Your task to perform on an android device: What's on my calendar tomorrow? Image 0: 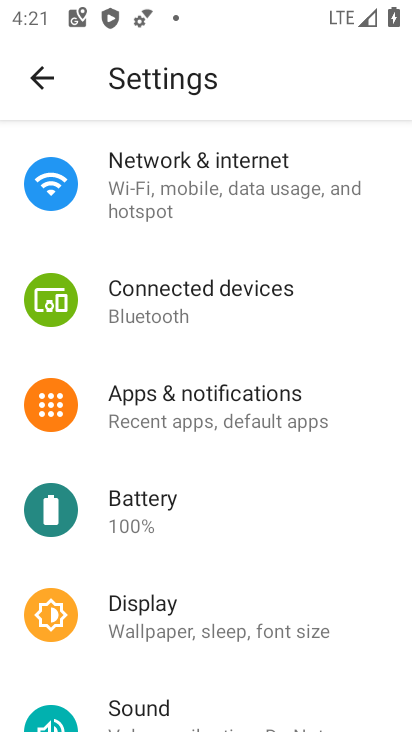
Step 0: press back button
Your task to perform on an android device: What's on my calendar tomorrow? Image 1: 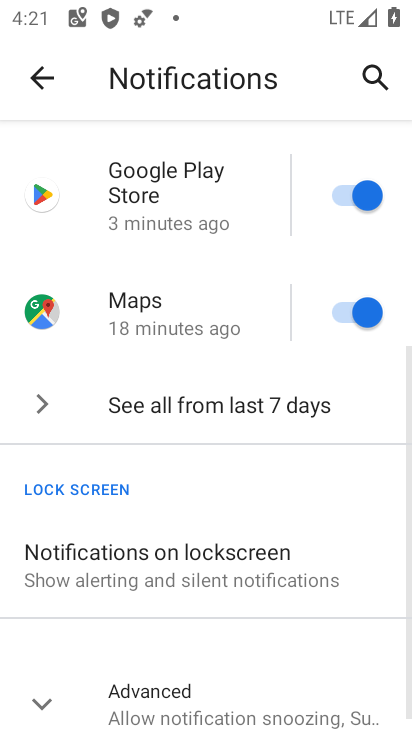
Step 1: press back button
Your task to perform on an android device: What's on my calendar tomorrow? Image 2: 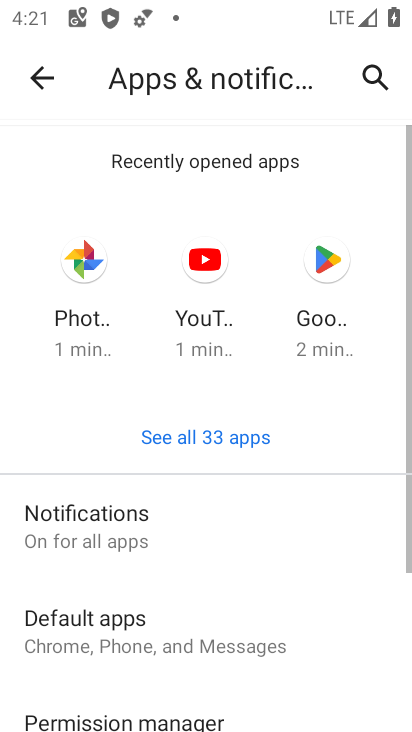
Step 2: press home button
Your task to perform on an android device: What's on my calendar tomorrow? Image 3: 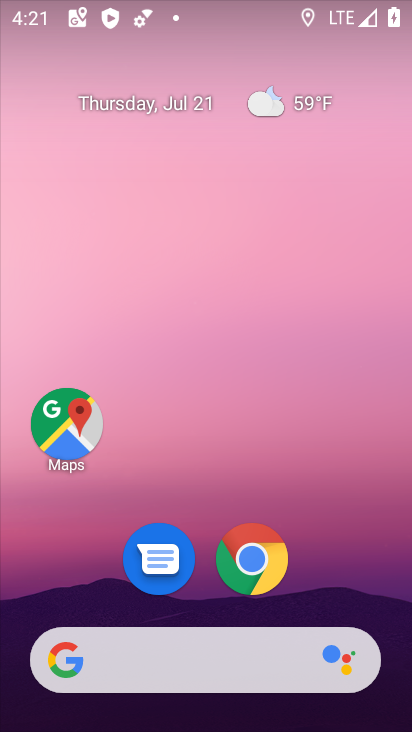
Step 3: drag from (86, 578) to (215, 1)
Your task to perform on an android device: What's on my calendar tomorrow? Image 4: 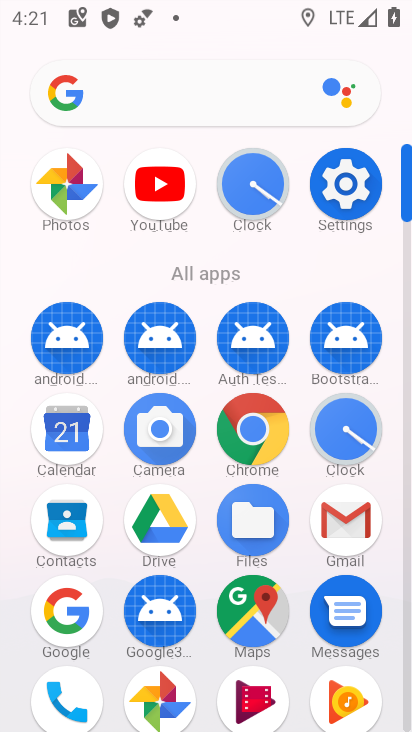
Step 4: click (65, 448)
Your task to perform on an android device: What's on my calendar tomorrow? Image 5: 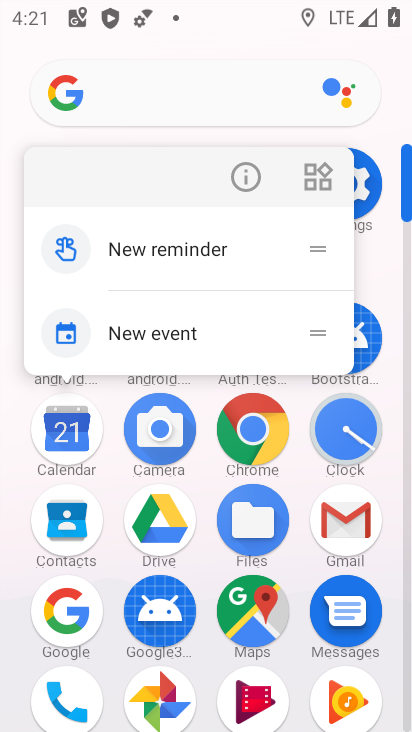
Step 5: click (50, 430)
Your task to perform on an android device: What's on my calendar tomorrow? Image 6: 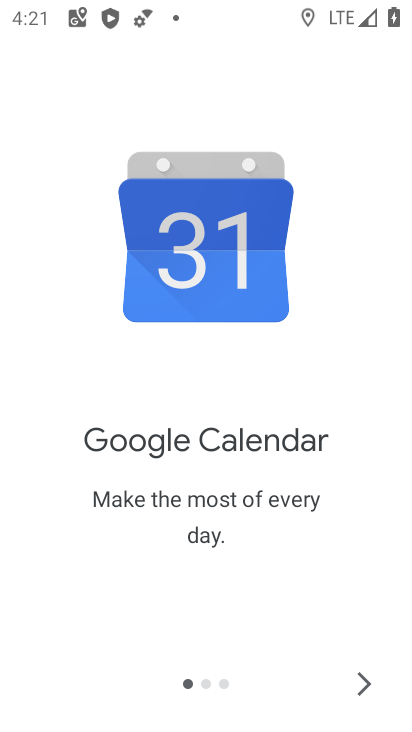
Step 6: click (371, 683)
Your task to perform on an android device: What's on my calendar tomorrow? Image 7: 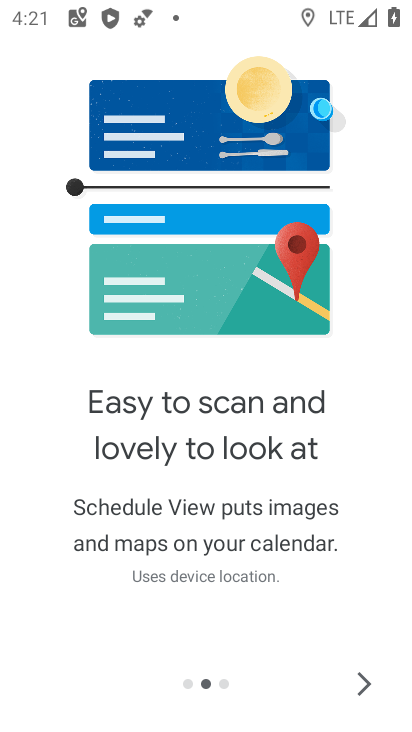
Step 7: click (371, 683)
Your task to perform on an android device: What's on my calendar tomorrow? Image 8: 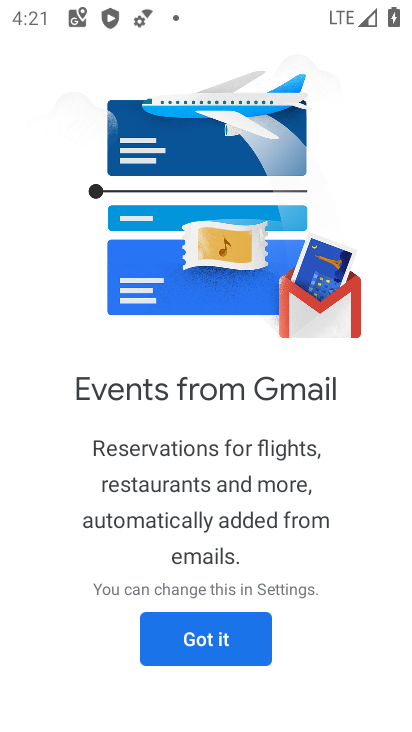
Step 8: click (209, 633)
Your task to perform on an android device: What's on my calendar tomorrow? Image 9: 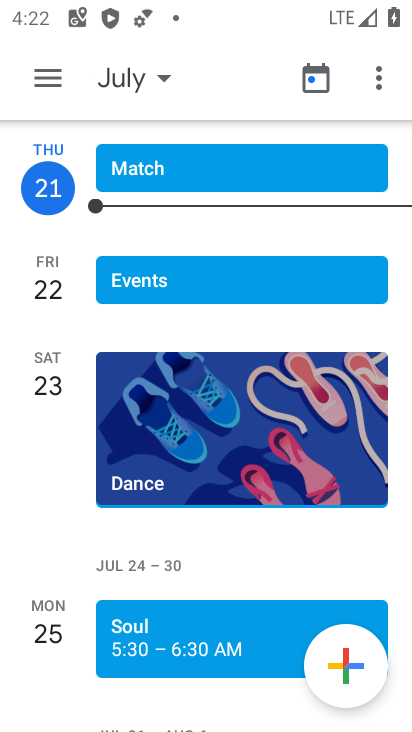
Step 9: task complete